Your task to perform on an android device: Open Wikipedia Image 0: 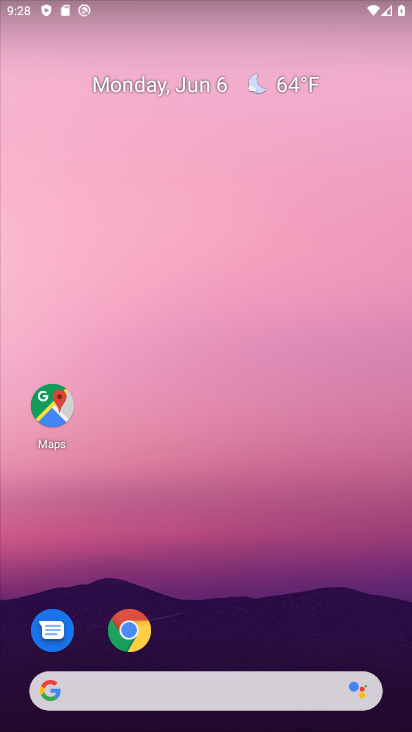
Step 0: click (128, 618)
Your task to perform on an android device: Open Wikipedia Image 1: 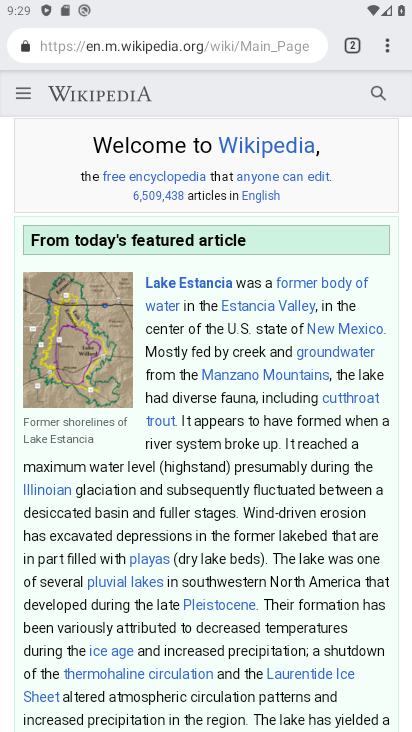
Step 1: task complete